Your task to perform on an android device: turn off smart reply in the gmail app Image 0: 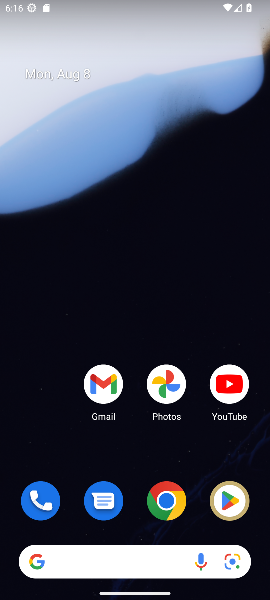
Step 0: click (108, 369)
Your task to perform on an android device: turn off smart reply in the gmail app Image 1: 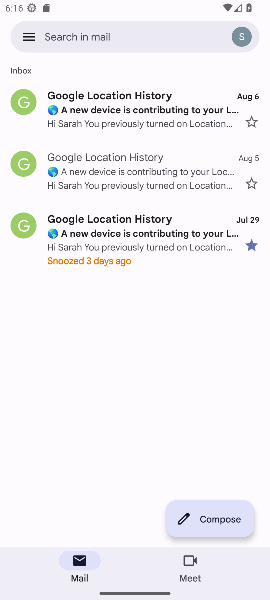
Step 1: click (38, 35)
Your task to perform on an android device: turn off smart reply in the gmail app Image 2: 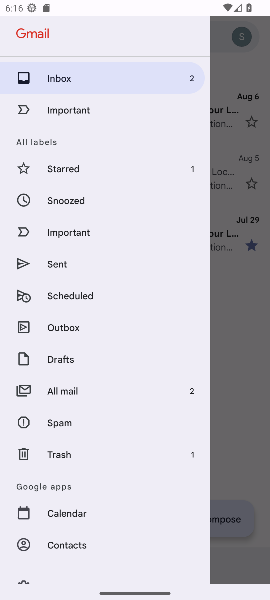
Step 2: drag from (72, 541) to (65, 334)
Your task to perform on an android device: turn off smart reply in the gmail app Image 3: 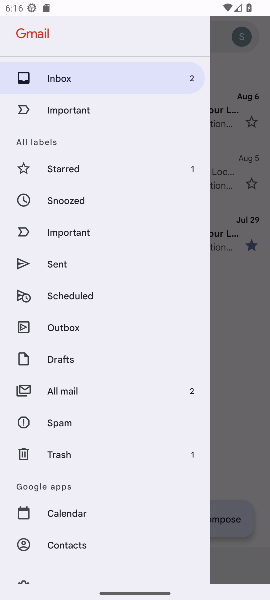
Step 3: drag from (92, 339) to (92, 301)
Your task to perform on an android device: turn off smart reply in the gmail app Image 4: 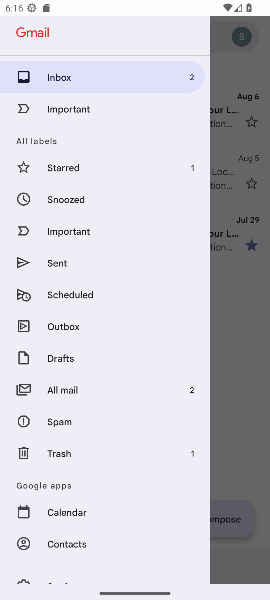
Step 4: drag from (46, 544) to (71, 211)
Your task to perform on an android device: turn off smart reply in the gmail app Image 5: 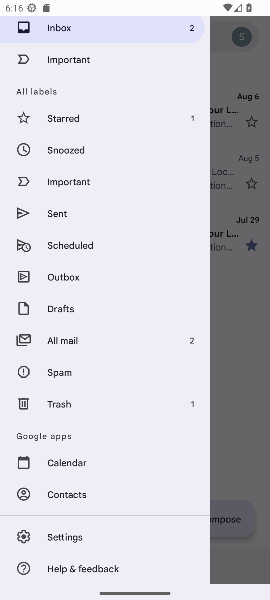
Step 5: click (68, 535)
Your task to perform on an android device: turn off smart reply in the gmail app Image 6: 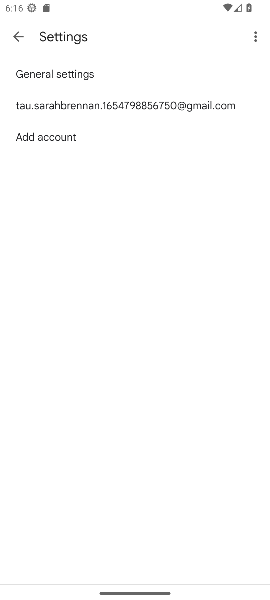
Step 6: click (178, 110)
Your task to perform on an android device: turn off smart reply in the gmail app Image 7: 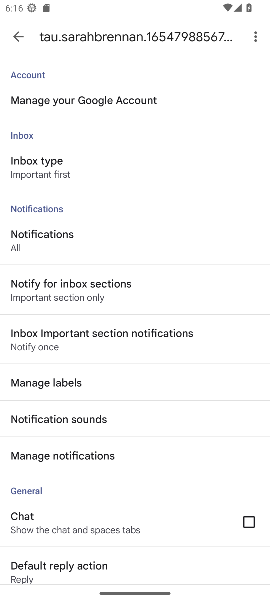
Step 7: drag from (72, 452) to (24, 160)
Your task to perform on an android device: turn off smart reply in the gmail app Image 8: 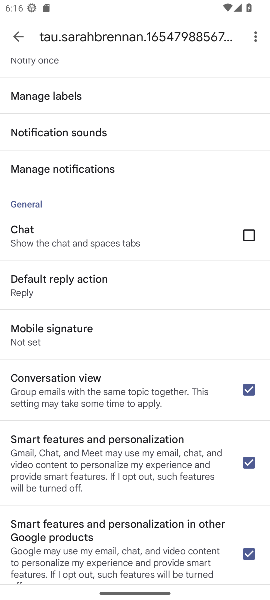
Step 8: drag from (158, 537) to (127, 180)
Your task to perform on an android device: turn off smart reply in the gmail app Image 9: 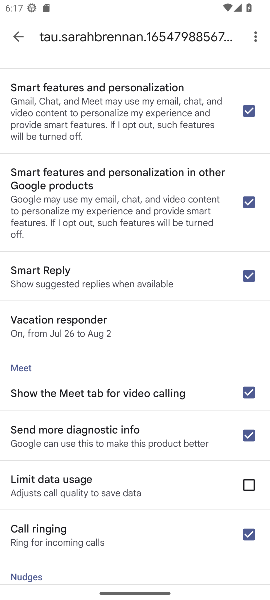
Step 9: drag from (105, 512) to (102, 291)
Your task to perform on an android device: turn off smart reply in the gmail app Image 10: 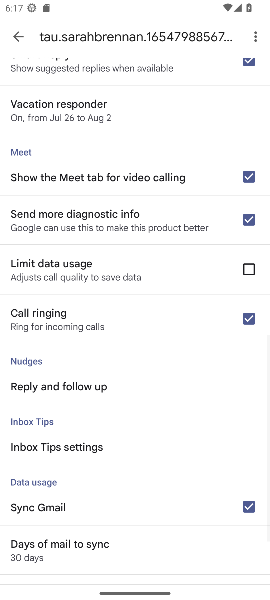
Step 10: drag from (146, 125) to (146, 319)
Your task to perform on an android device: turn off smart reply in the gmail app Image 11: 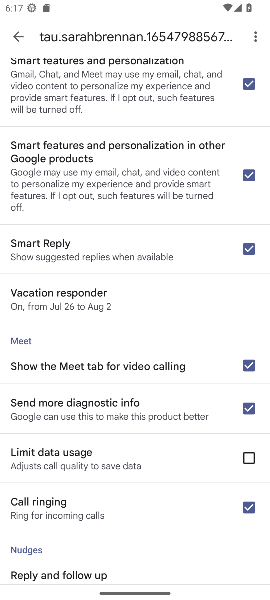
Step 11: click (254, 251)
Your task to perform on an android device: turn off smart reply in the gmail app Image 12: 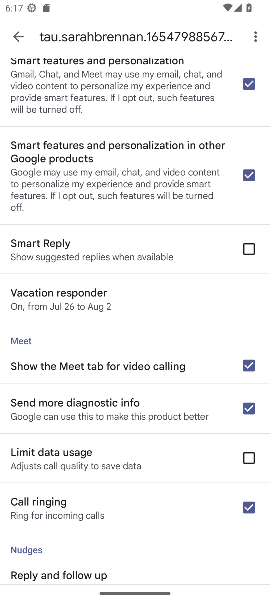
Step 12: task complete